Your task to perform on an android device: Open Chrome and go to settings Image 0: 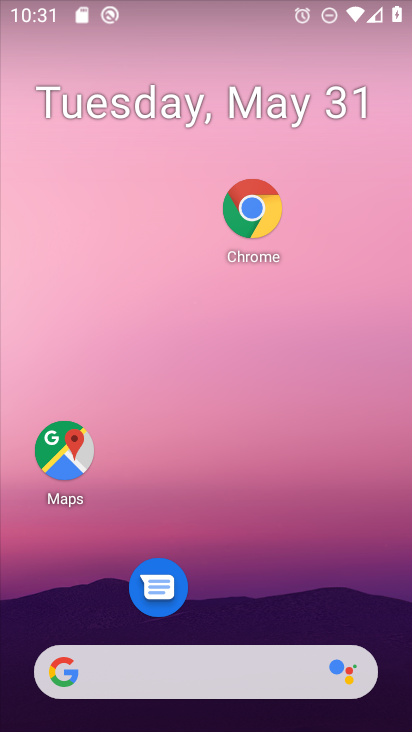
Step 0: press home button
Your task to perform on an android device: Open Chrome and go to settings Image 1: 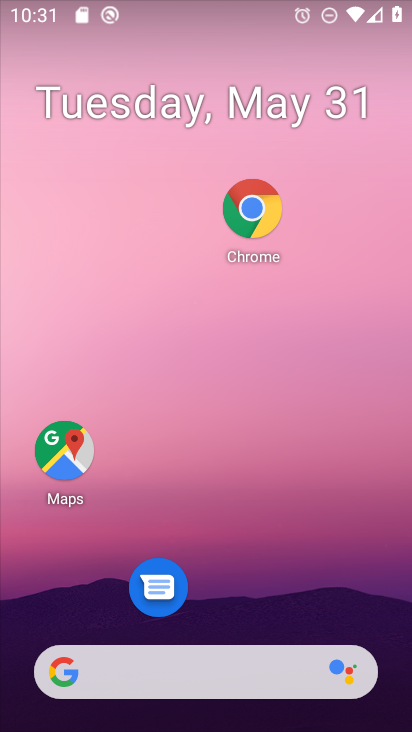
Step 1: click (254, 206)
Your task to perform on an android device: Open Chrome and go to settings Image 2: 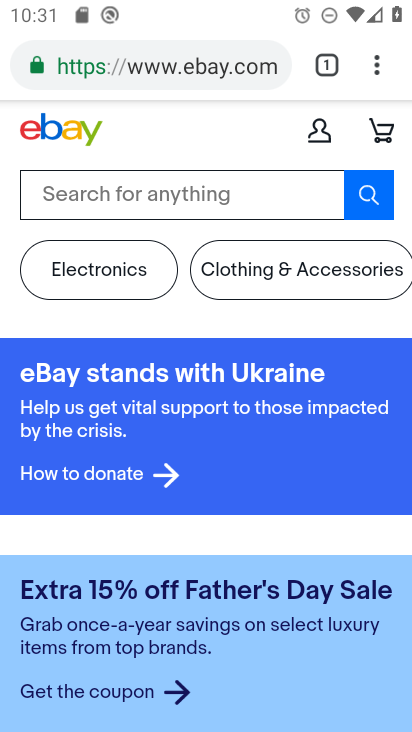
Step 2: click (378, 62)
Your task to perform on an android device: Open Chrome and go to settings Image 3: 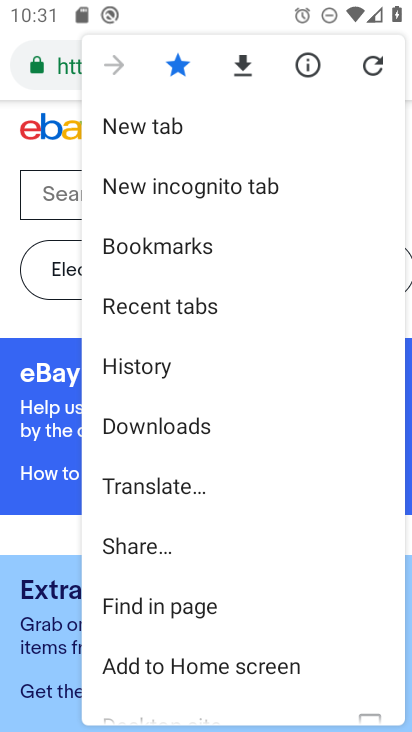
Step 3: drag from (243, 658) to (264, 318)
Your task to perform on an android device: Open Chrome and go to settings Image 4: 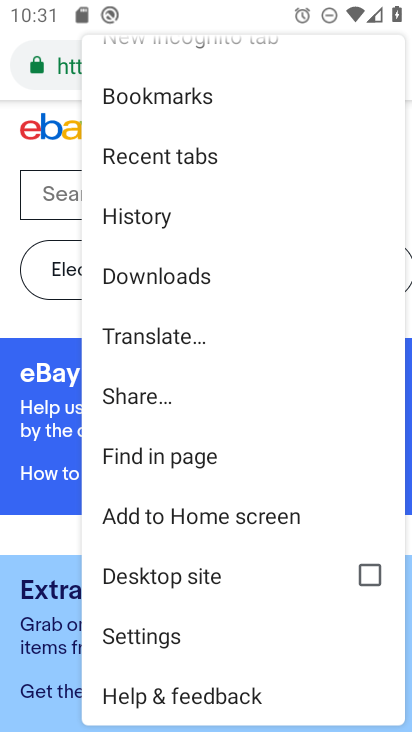
Step 4: click (194, 636)
Your task to perform on an android device: Open Chrome and go to settings Image 5: 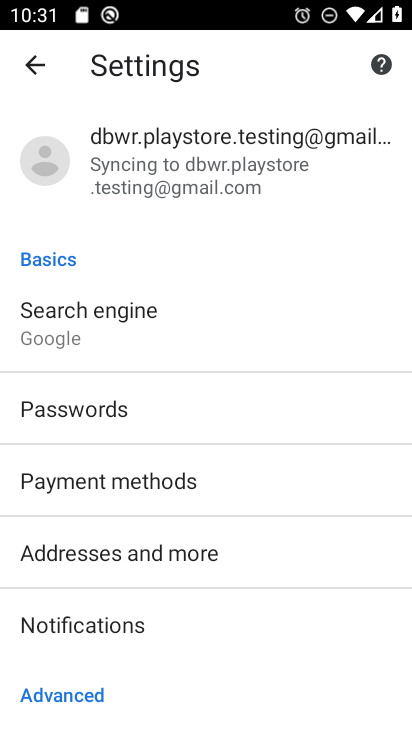
Step 5: task complete